Your task to perform on an android device: Go to display settings Image 0: 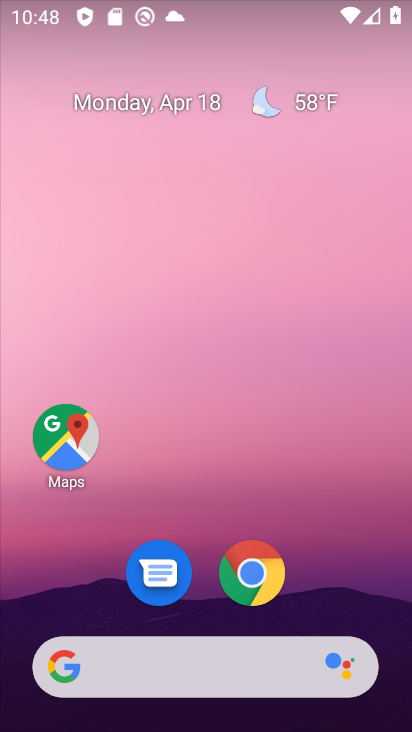
Step 0: drag from (318, 583) to (293, 99)
Your task to perform on an android device: Go to display settings Image 1: 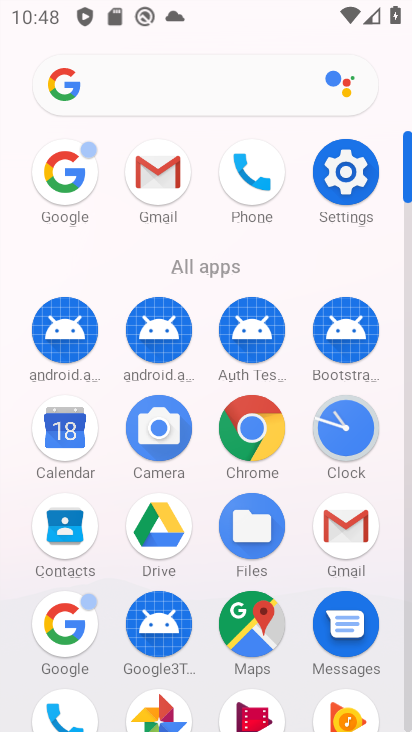
Step 1: click (352, 175)
Your task to perform on an android device: Go to display settings Image 2: 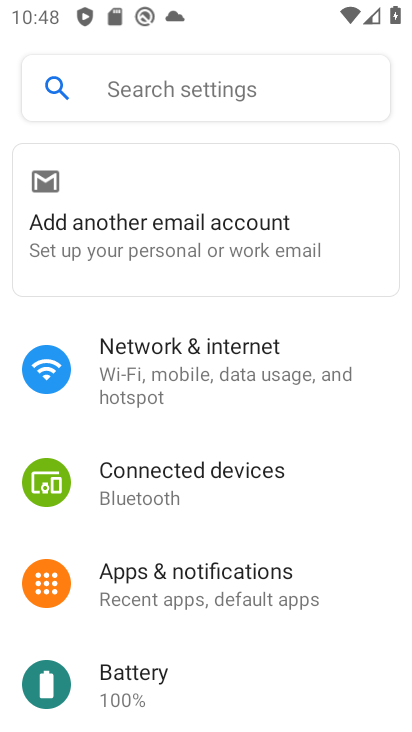
Step 2: drag from (223, 655) to (190, 190)
Your task to perform on an android device: Go to display settings Image 3: 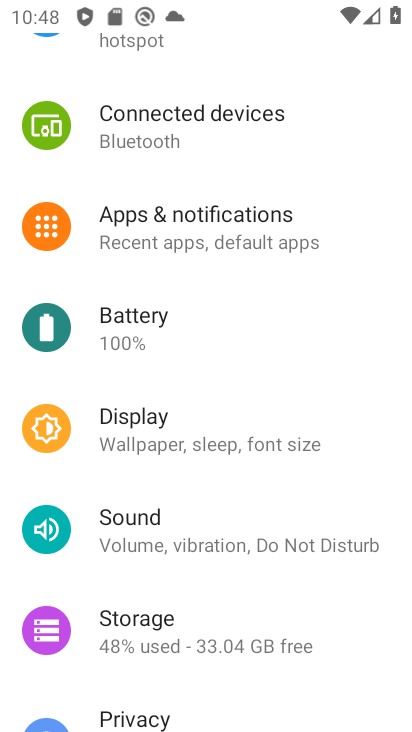
Step 3: click (109, 428)
Your task to perform on an android device: Go to display settings Image 4: 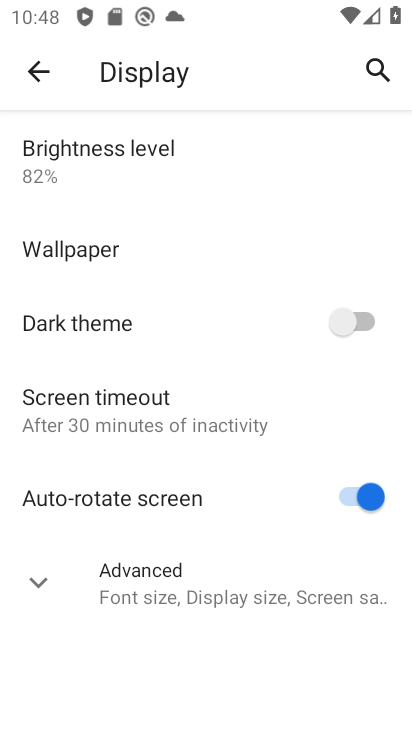
Step 4: click (171, 599)
Your task to perform on an android device: Go to display settings Image 5: 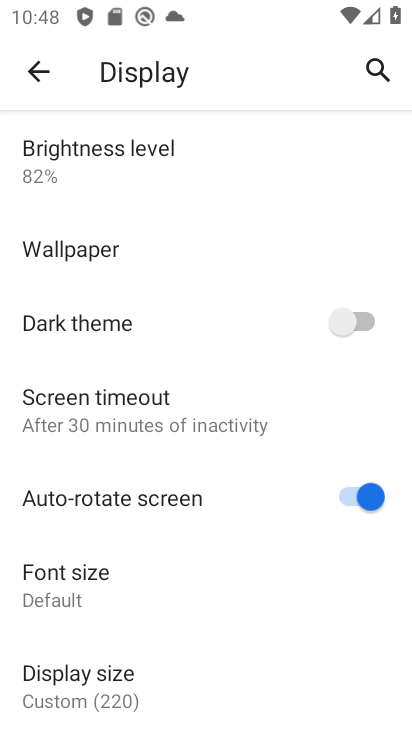
Step 5: task complete